Your task to perform on an android device: open a bookmark in the chrome app Image 0: 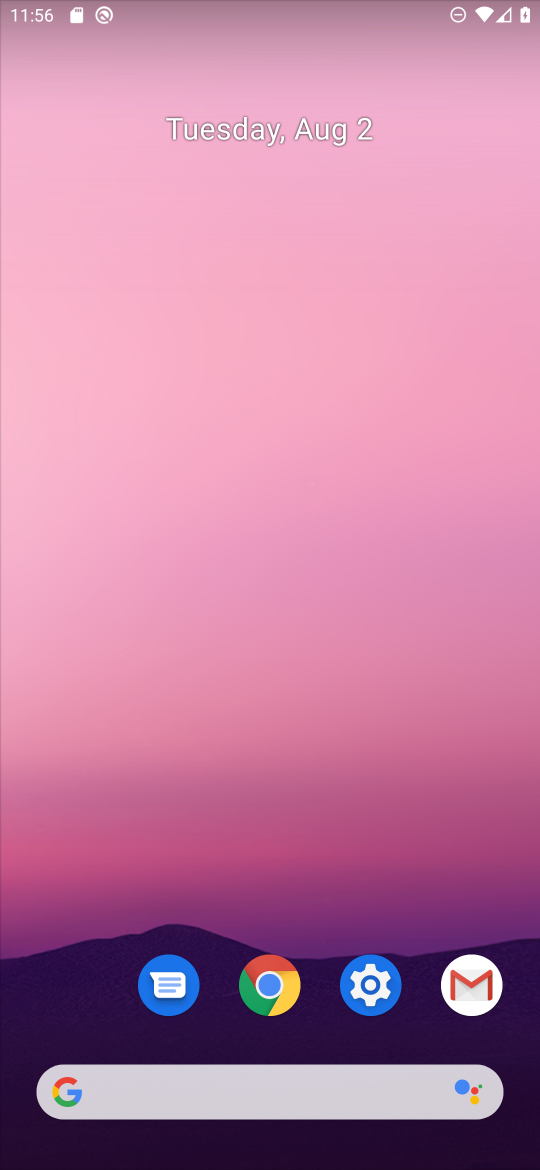
Step 0: press home button
Your task to perform on an android device: open a bookmark in the chrome app Image 1: 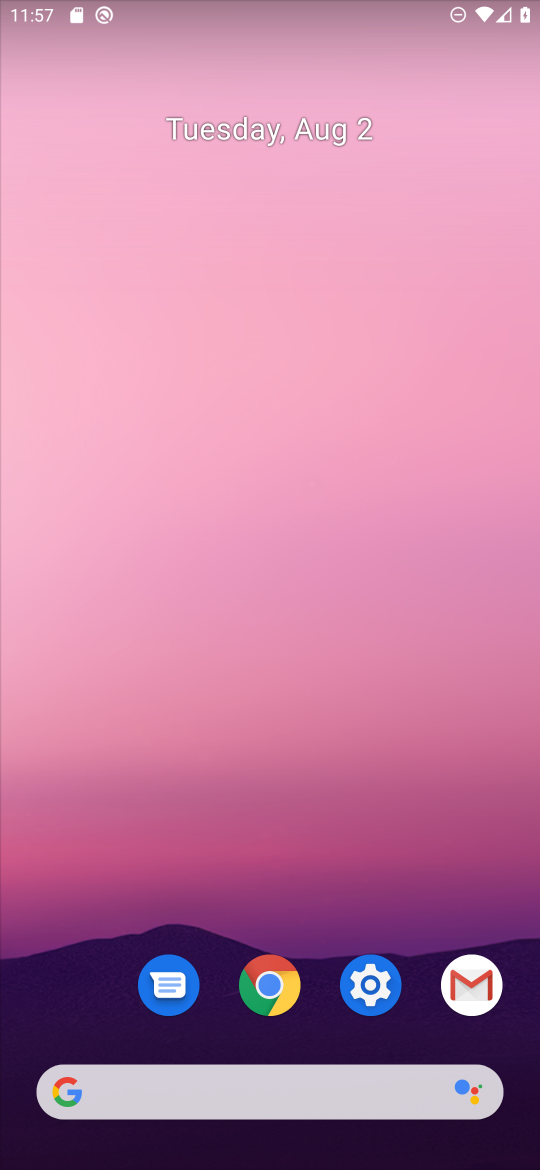
Step 1: click (284, 1016)
Your task to perform on an android device: open a bookmark in the chrome app Image 2: 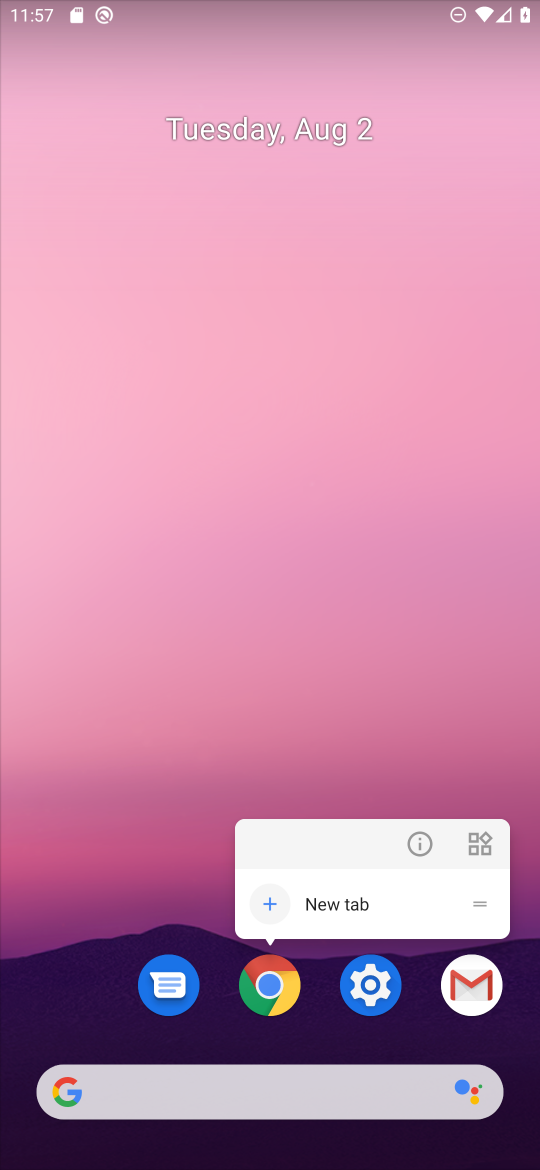
Step 2: click (273, 1003)
Your task to perform on an android device: open a bookmark in the chrome app Image 3: 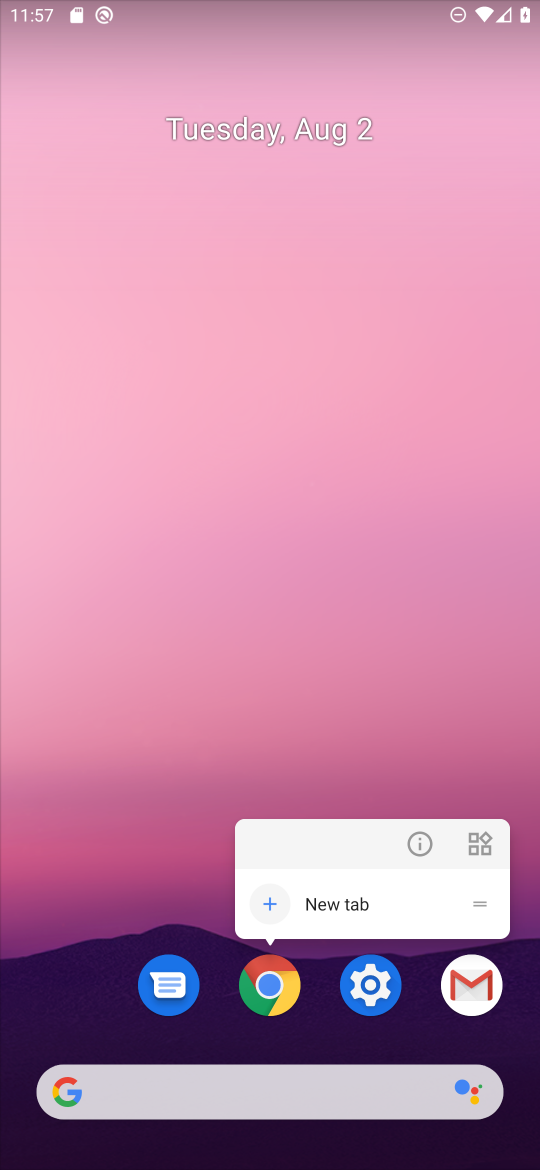
Step 3: click (271, 992)
Your task to perform on an android device: open a bookmark in the chrome app Image 4: 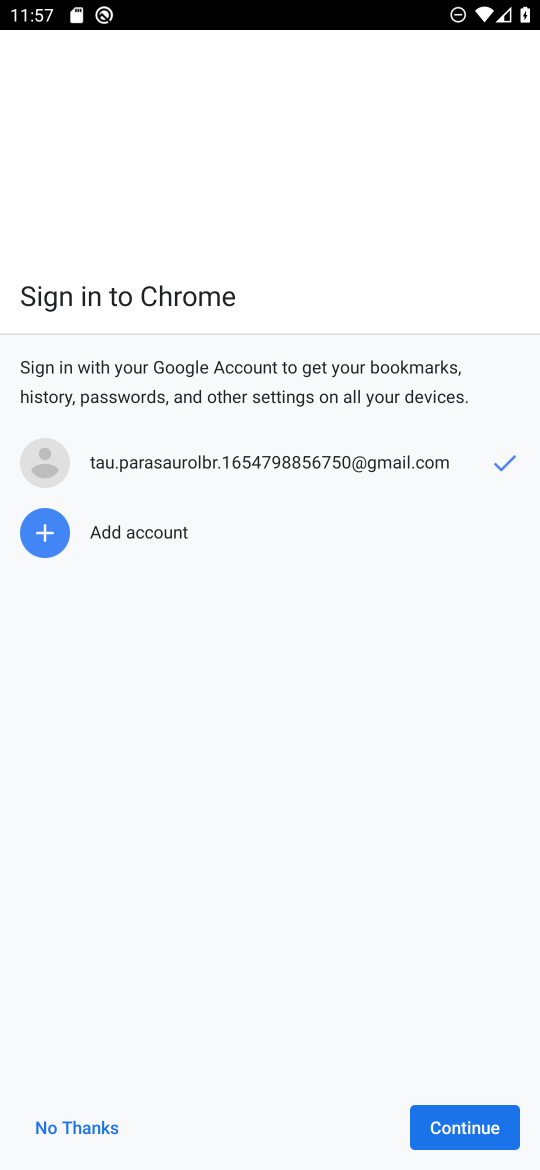
Step 4: click (456, 1128)
Your task to perform on an android device: open a bookmark in the chrome app Image 5: 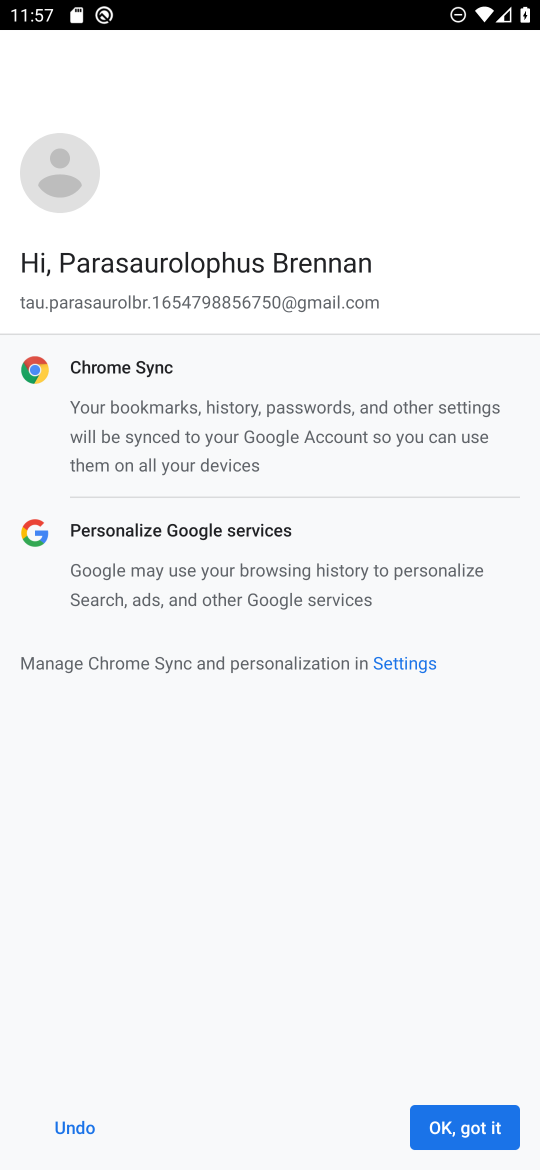
Step 5: click (455, 1130)
Your task to perform on an android device: open a bookmark in the chrome app Image 6: 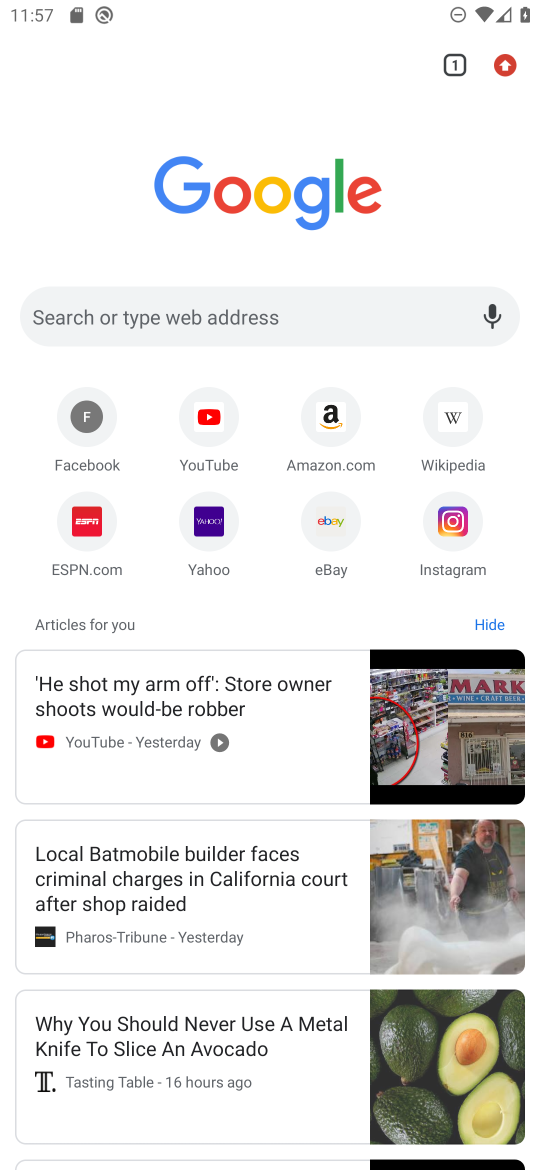
Step 6: click (496, 72)
Your task to perform on an android device: open a bookmark in the chrome app Image 7: 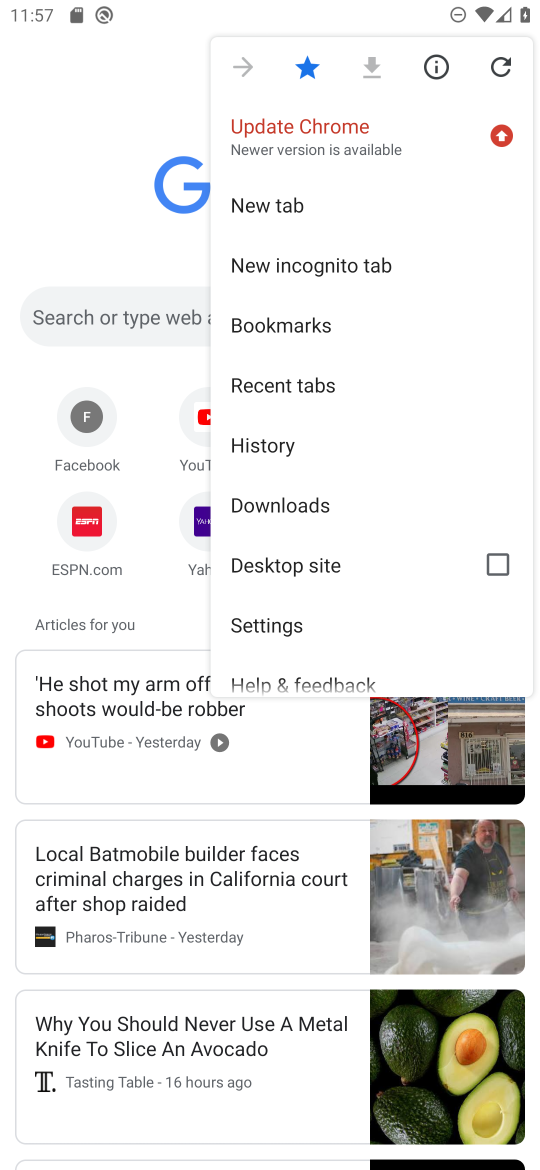
Step 7: click (259, 327)
Your task to perform on an android device: open a bookmark in the chrome app Image 8: 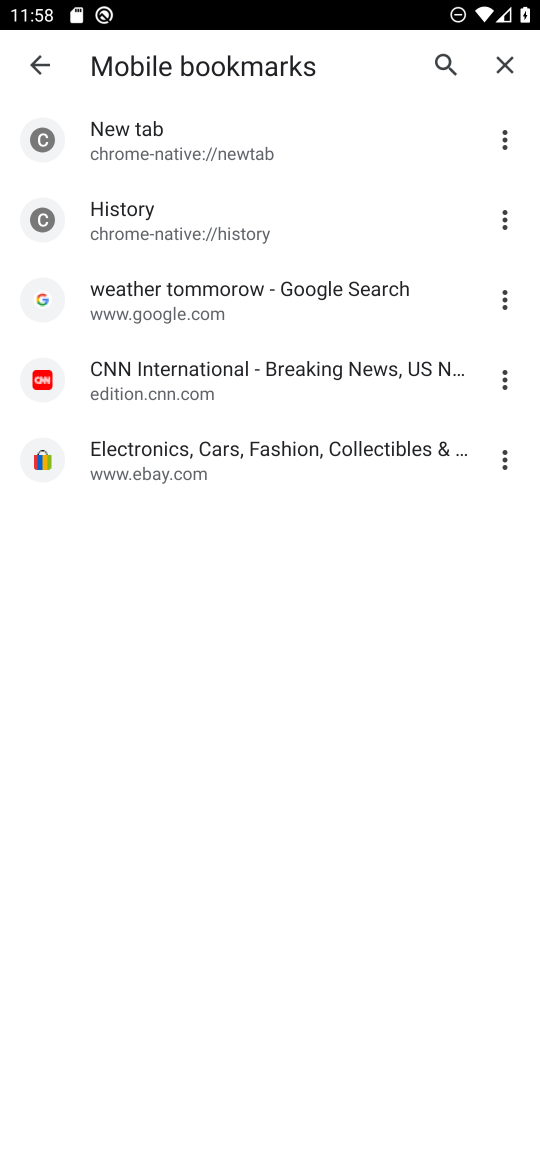
Step 8: task complete